Your task to perform on an android device: turn notification dots off Image 0: 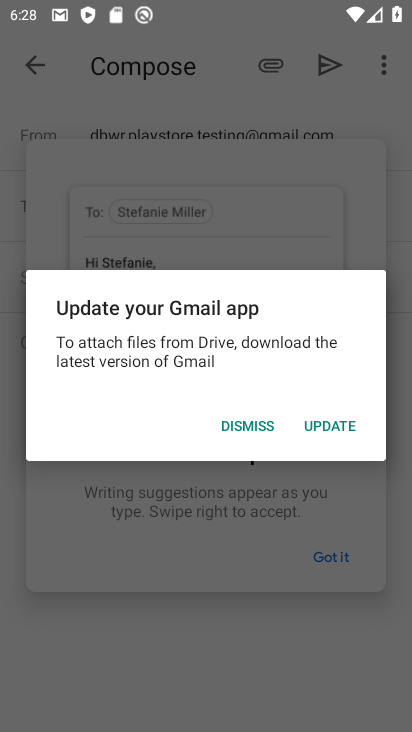
Step 0: press home button
Your task to perform on an android device: turn notification dots off Image 1: 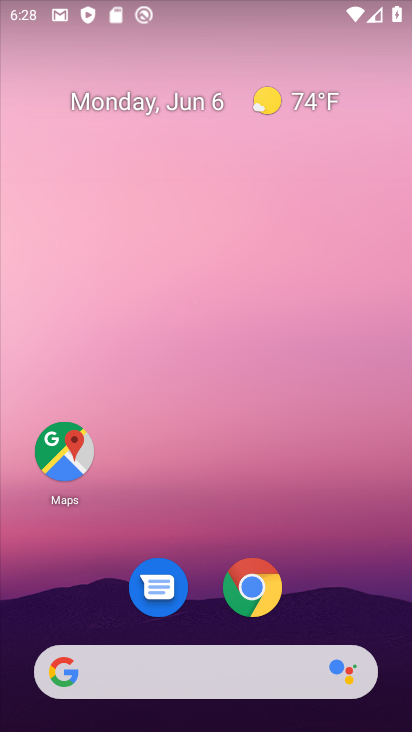
Step 1: drag from (392, 636) to (275, 50)
Your task to perform on an android device: turn notification dots off Image 2: 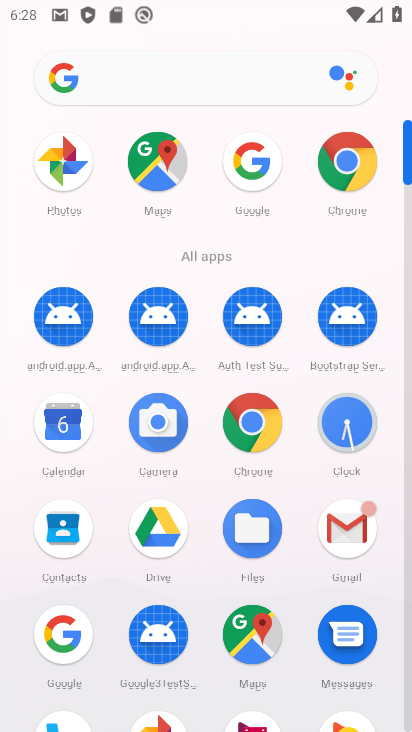
Step 2: drag from (208, 666) to (190, 123)
Your task to perform on an android device: turn notification dots off Image 3: 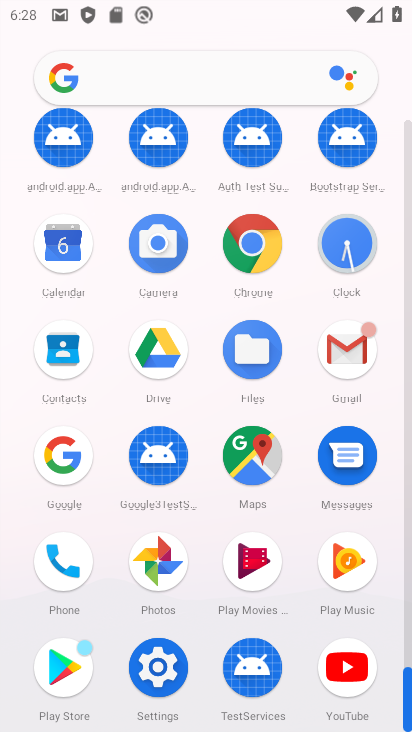
Step 3: click (154, 669)
Your task to perform on an android device: turn notification dots off Image 4: 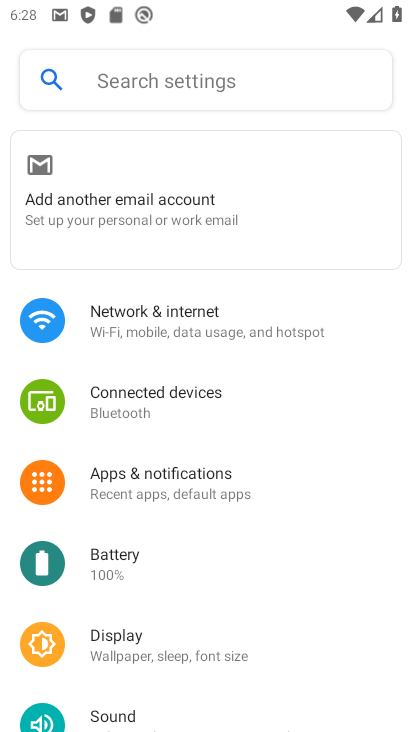
Step 4: click (183, 495)
Your task to perform on an android device: turn notification dots off Image 5: 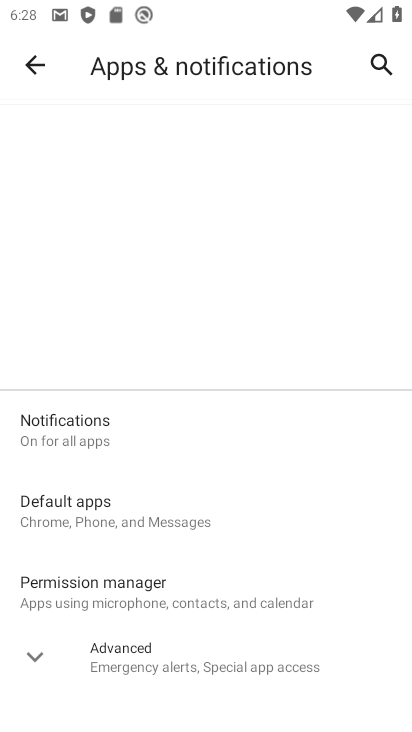
Step 5: click (205, 436)
Your task to perform on an android device: turn notification dots off Image 6: 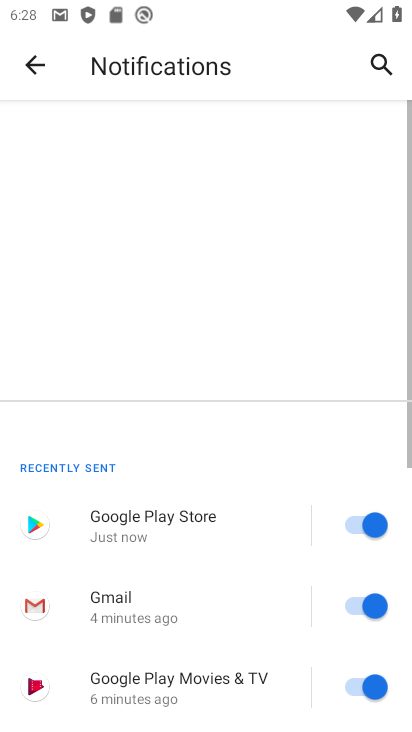
Step 6: drag from (151, 673) to (227, 121)
Your task to perform on an android device: turn notification dots off Image 7: 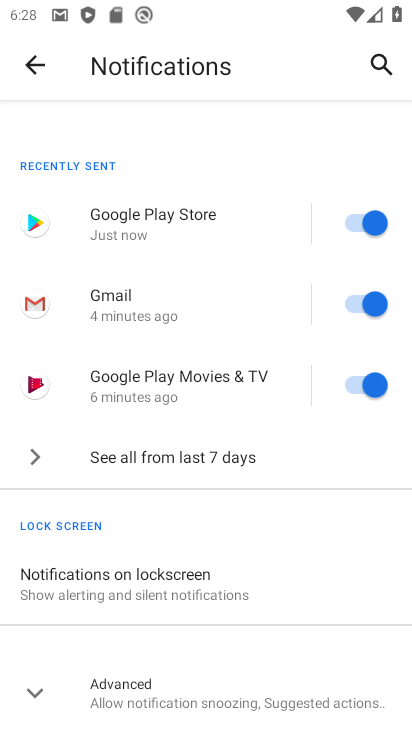
Step 7: click (35, 688)
Your task to perform on an android device: turn notification dots off Image 8: 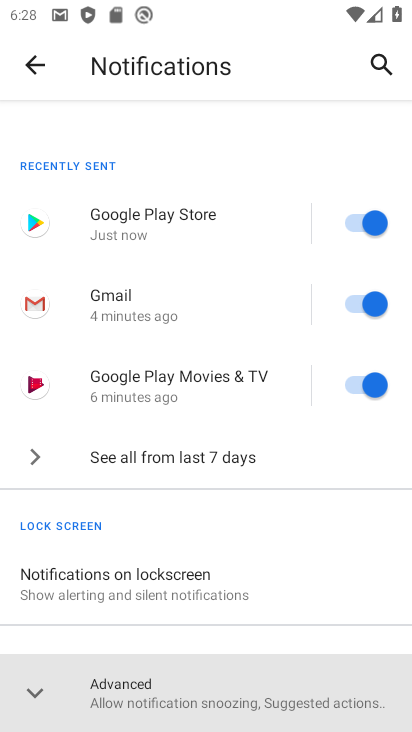
Step 8: drag from (105, 705) to (157, 20)
Your task to perform on an android device: turn notification dots off Image 9: 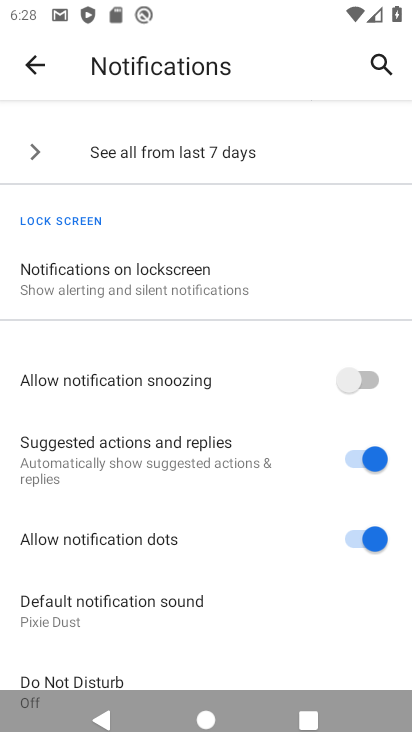
Step 9: click (220, 532)
Your task to perform on an android device: turn notification dots off Image 10: 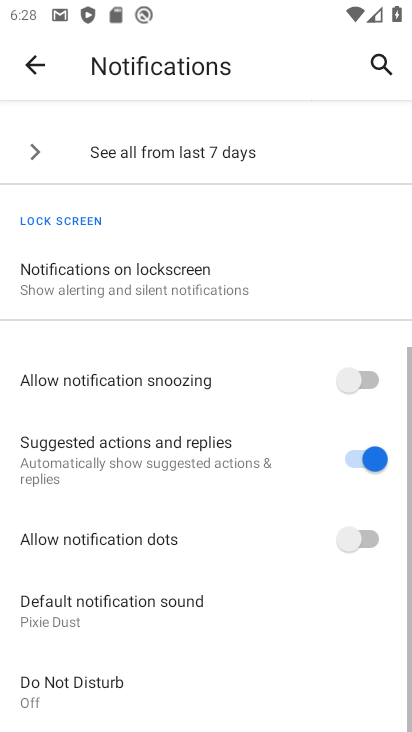
Step 10: task complete